Your task to perform on an android device: Do I have any events this weekend? Image 0: 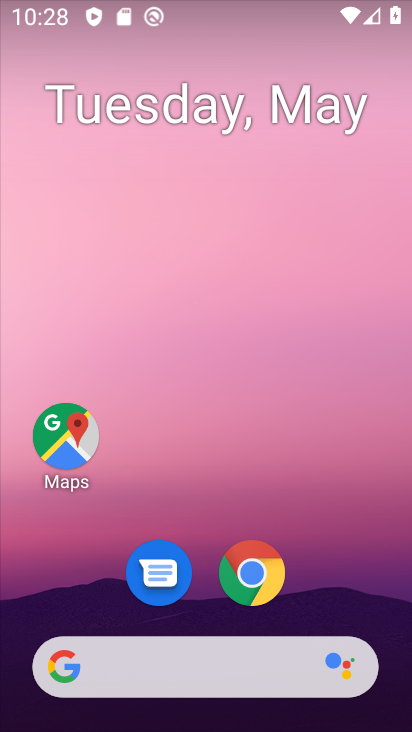
Step 0: drag from (331, 573) to (400, 126)
Your task to perform on an android device: Do I have any events this weekend? Image 1: 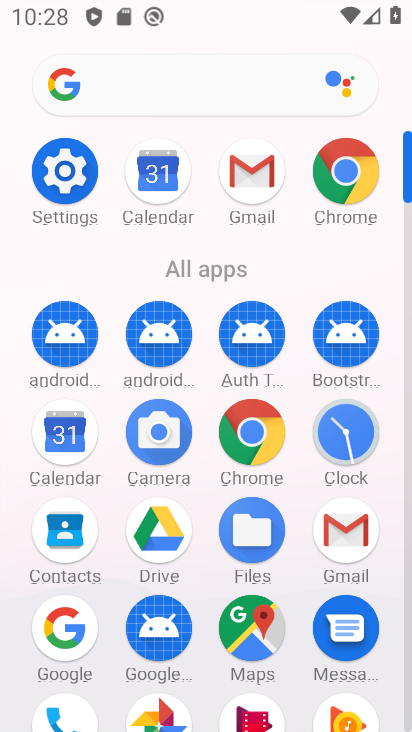
Step 1: click (55, 438)
Your task to perform on an android device: Do I have any events this weekend? Image 2: 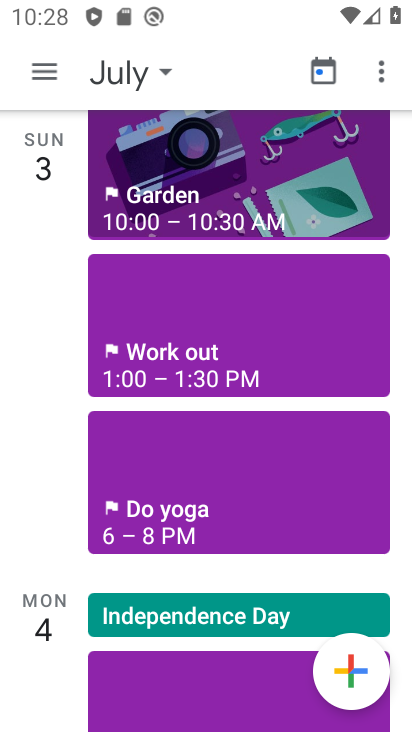
Step 2: drag from (73, 150) to (26, 614)
Your task to perform on an android device: Do I have any events this weekend? Image 3: 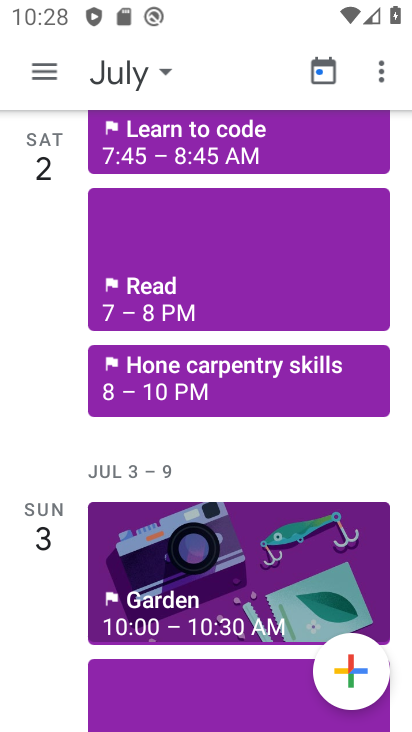
Step 3: drag from (71, 154) to (14, 622)
Your task to perform on an android device: Do I have any events this weekend? Image 4: 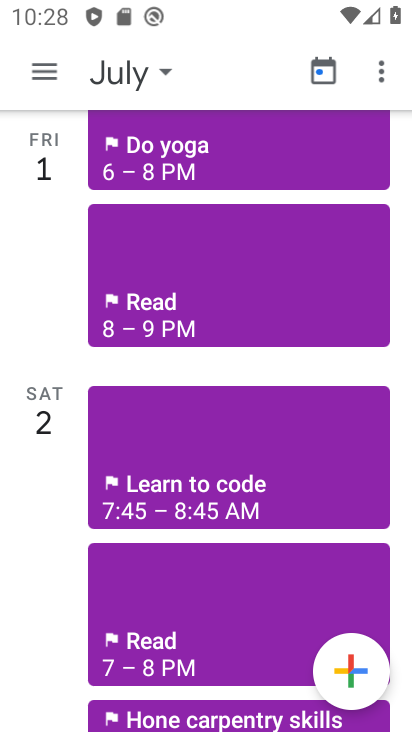
Step 4: drag from (69, 149) to (49, 642)
Your task to perform on an android device: Do I have any events this weekend? Image 5: 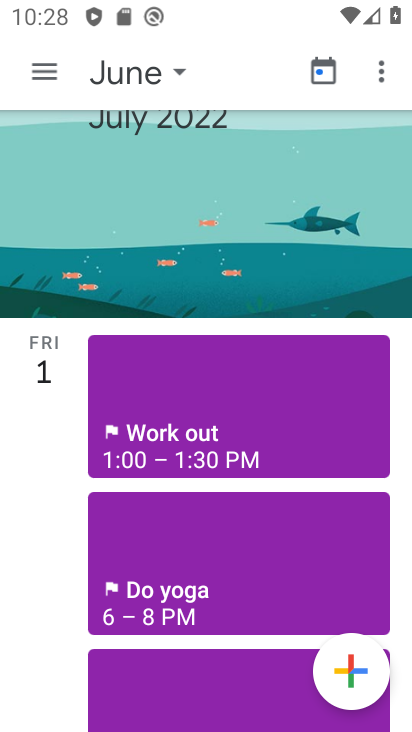
Step 5: drag from (194, 562) to (261, 247)
Your task to perform on an android device: Do I have any events this weekend? Image 6: 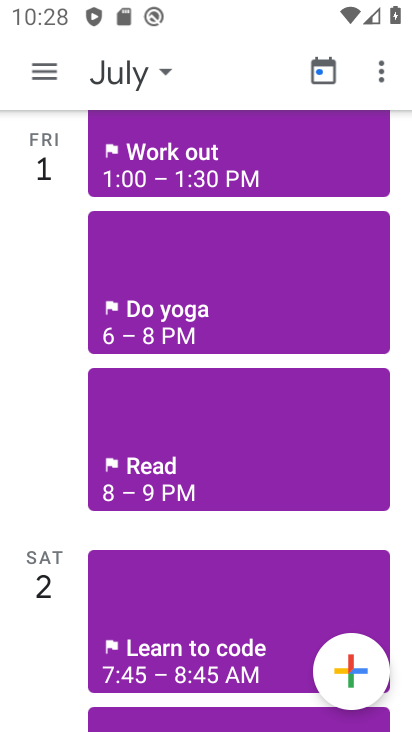
Step 6: click (155, 66)
Your task to perform on an android device: Do I have any events this weekend? Image 7: 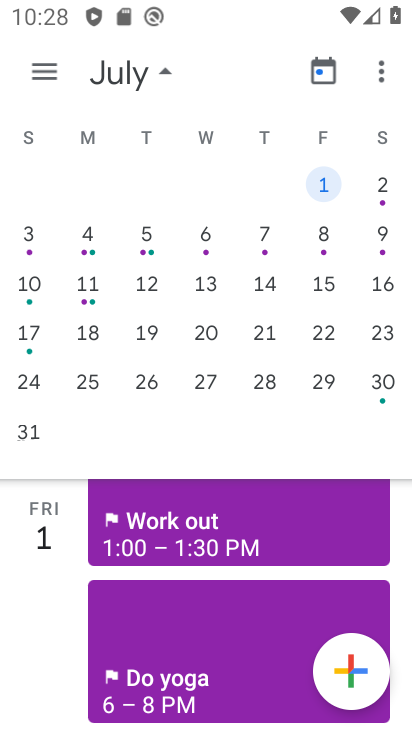
Step 7: click (332, 182)
Your task to perform on an android device: Do I have any events this weekend? Image 8: 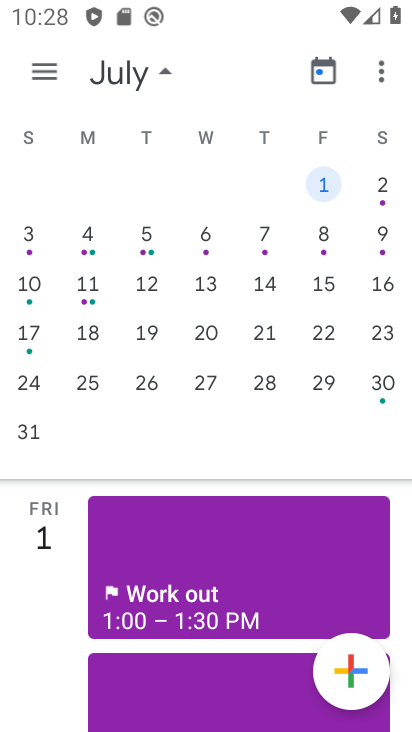
Step 8: task complete